Your task to perform on an android device: turn on data saver in the chrome app Image 0: 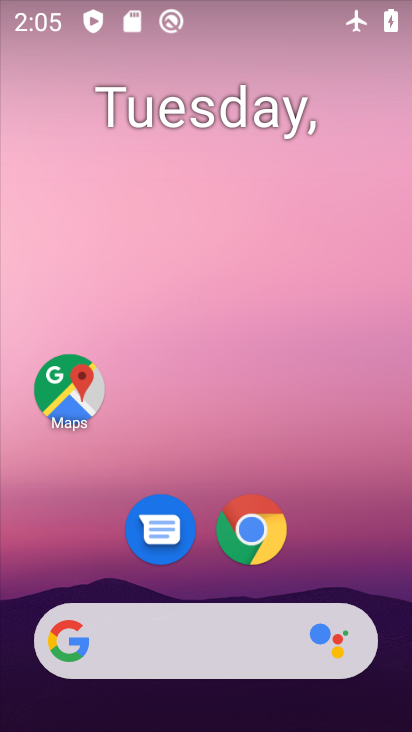
Step 0: click (258, 551)
Your task to perform on an android device: turn on data saver in the chrome app Image 1: 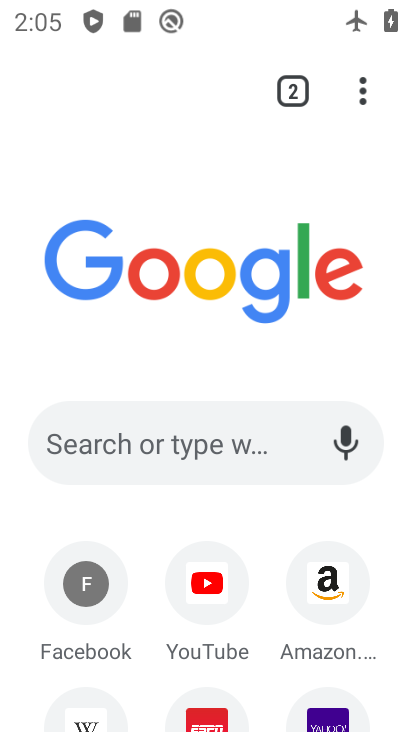
Step 1: click (356, 113)
Your task to perform on an android device: turn on data saver in the chrome app Image 2: 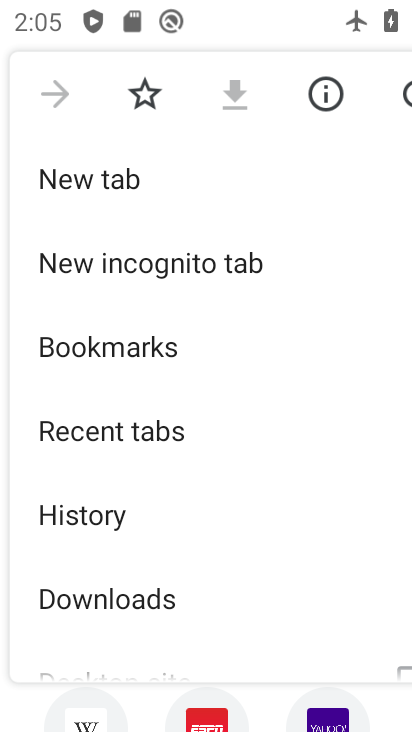
Step 2: drag from (187, 650) to (160, 191)
Your task to perform on an android device: turn on data saver in the chrome app Image 3: 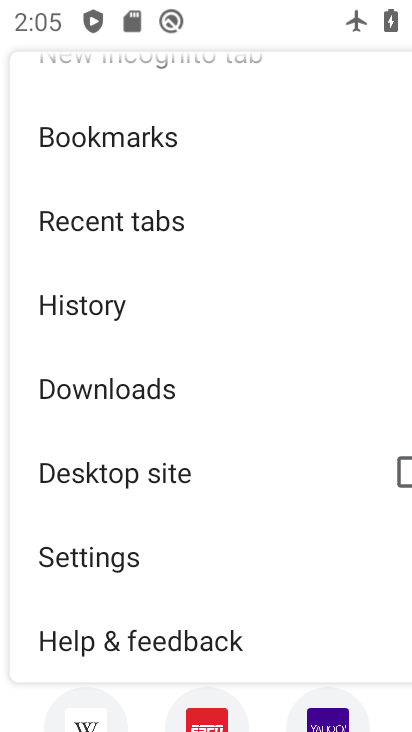
Step 3: click (162, 551)
Your task to perform on an android device: turn on data saver in the chrome app Image 4: 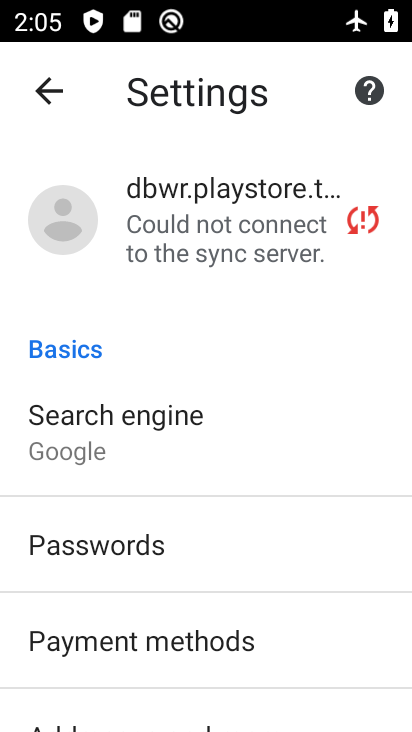
Step 4: drag from (225, 662) to (240, 159)
Your task to perform on an android device: turn on data saver in the chrome app Image 5: 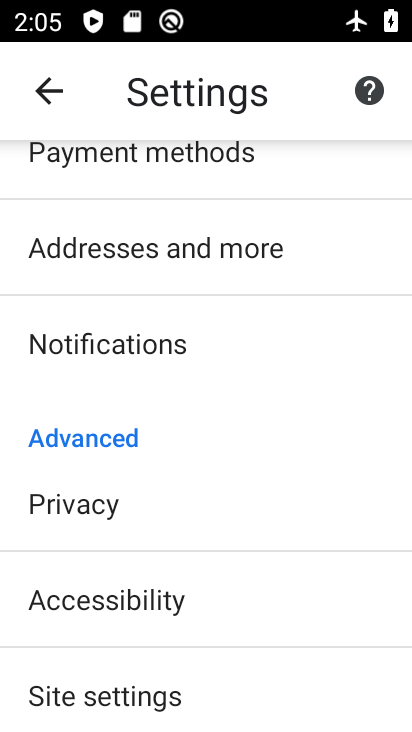
Step 5: drag from (222, 645) to (200, 550)
Your task to perform on an android device: turn on data saver in the chrome app Image 6: 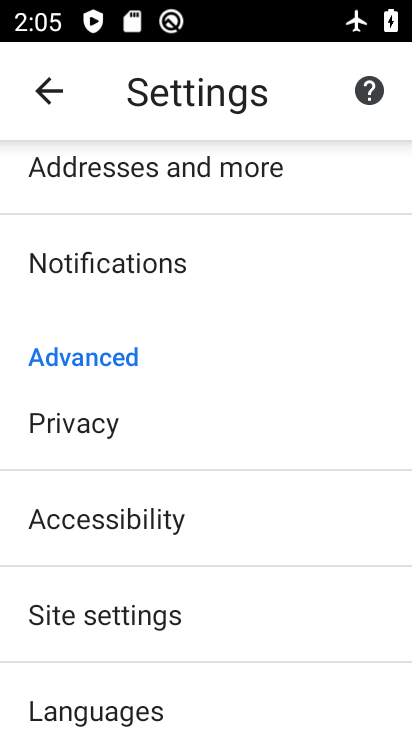
Step 6: drag from (199, 645) to (186, 200)
Your task to perform on an android device: turn on data saver in the chrome app Image 7: 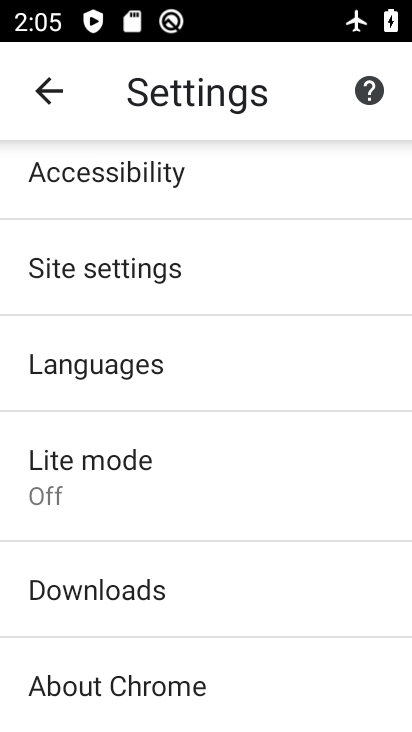
Step 7: click (170, 480)
Your task to perform on an android device: turn on data saver in the chrome app Image 8: 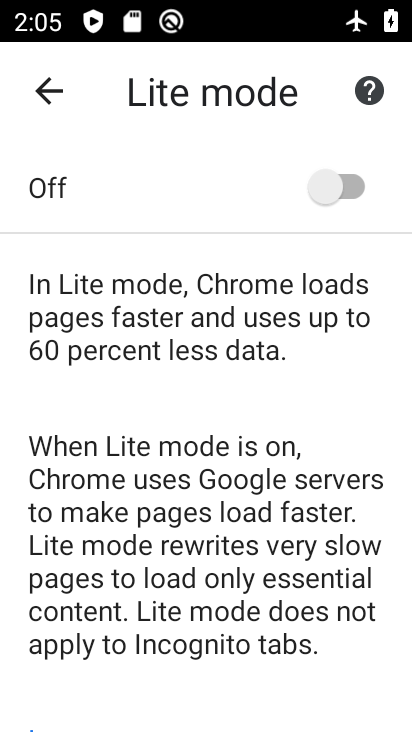
Step 8: click (351, 189)
Your task to perform on an android device: turn on data saver in the chrome app Image 9: 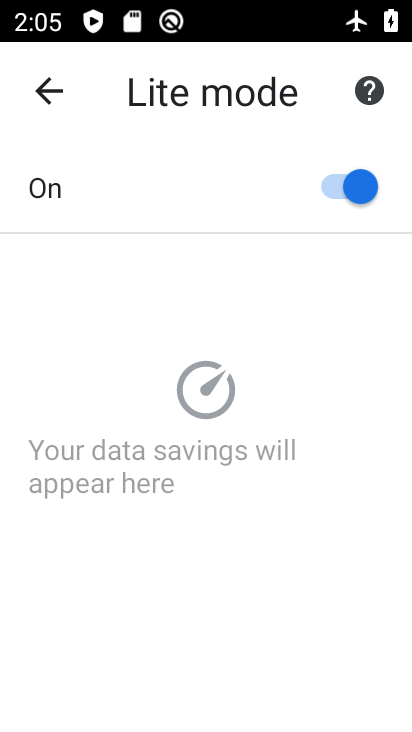
Step 9: task complete